Your task to perform on an android device: change the upload size in google photos Image 0: 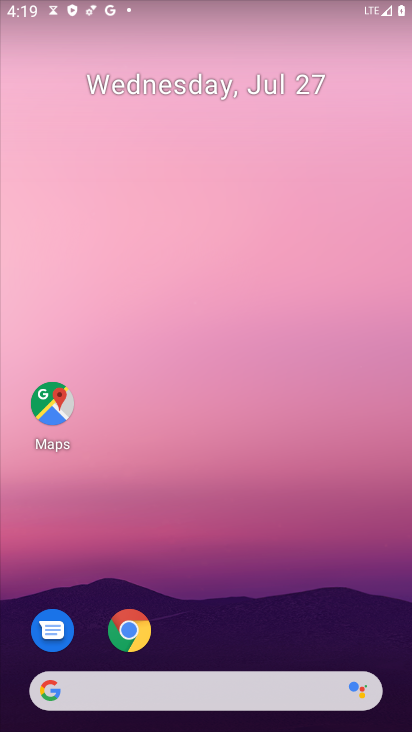
Step 0: drag from (223, 593) to (247, 3)
Your task to perform on an android device: change the upload size in google photos Image 1: 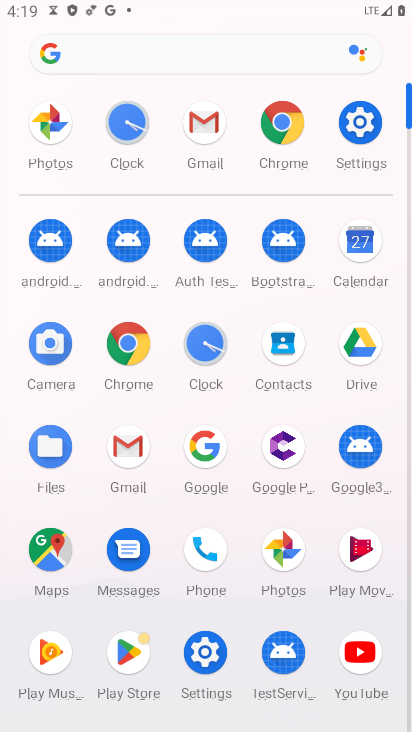
Step 1: click (281, 569)
Your task to perform on an android device: change the upload size in google photos Image 2: 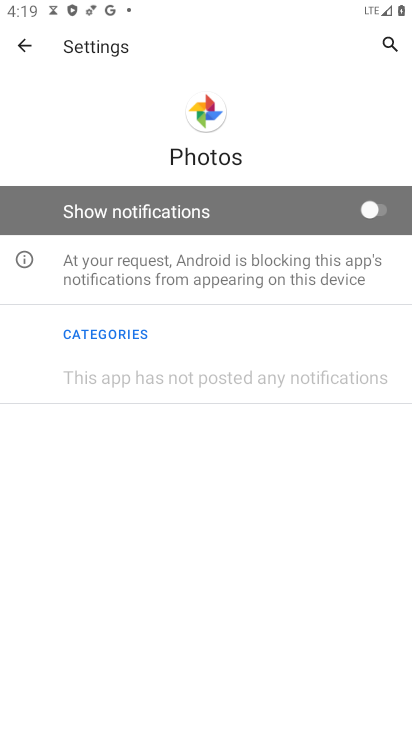
Step 2: click (27, 45)
Your task to perform on an android device: change the upload size in google photos Image 3: 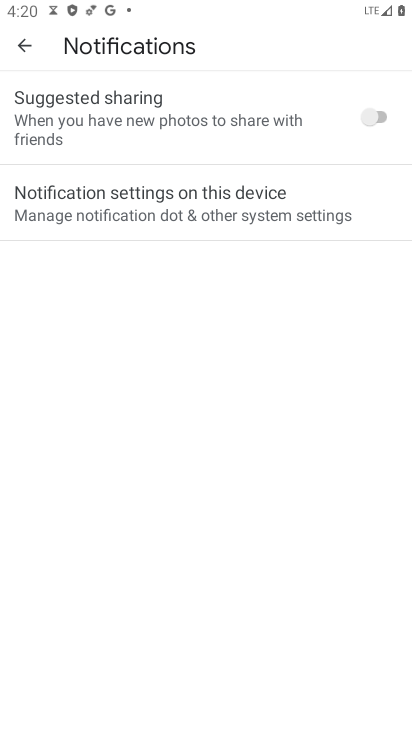
Step 3: click (27, 44)
Your task to perform on an android device: change the upload size in google photos Image 4: 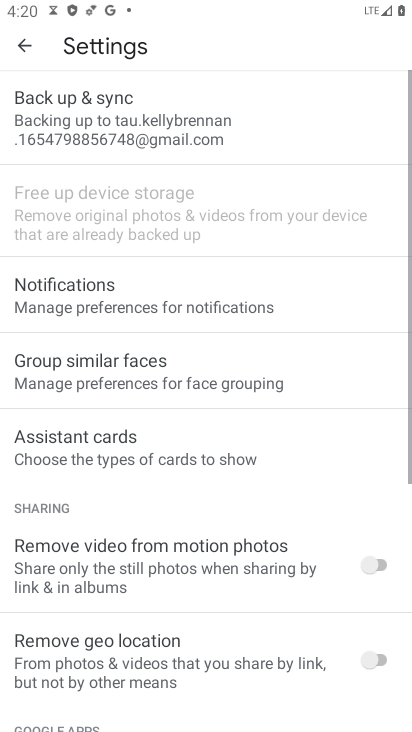
Step 4: click (161, 126)
Your task to perform on an android device: change the upload size in google photos Image 5: 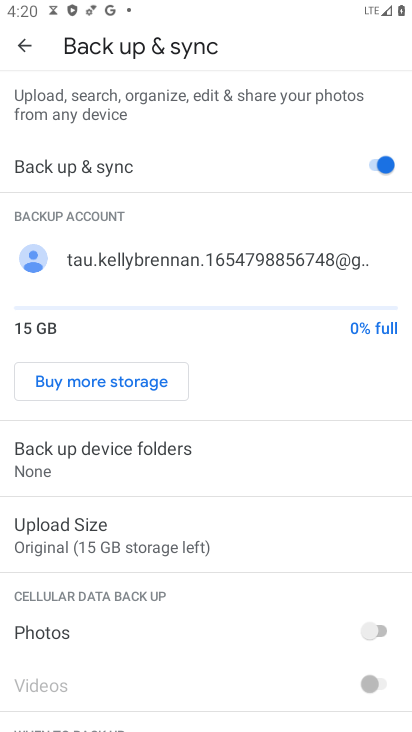
Step 5: click (114, 544)
Your task to perform on an android device: change the upload size in google photos Image 6: 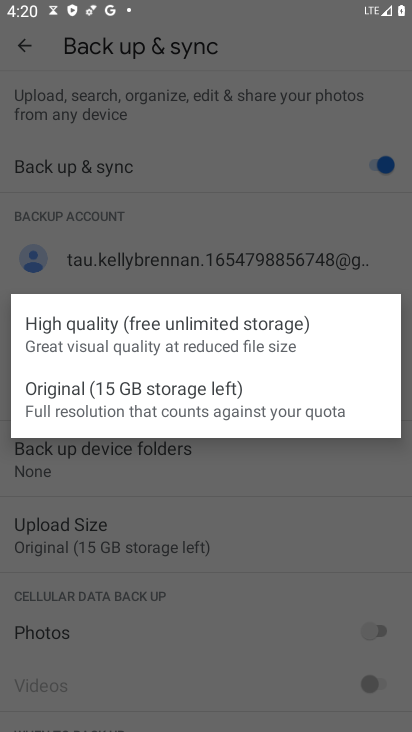
Step 6: click (123, 335)
Your task to perform on an android device: change the upload size in google photos Image 7: 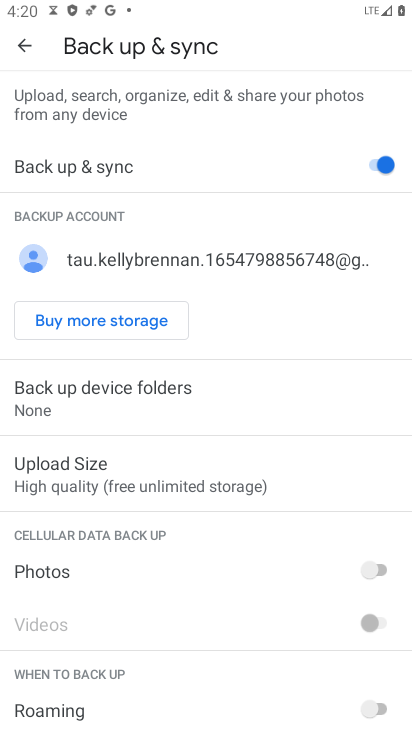
Step 7: task complete